Your task to perform on an android device: Play the last video I watched on Youtube Image 0: 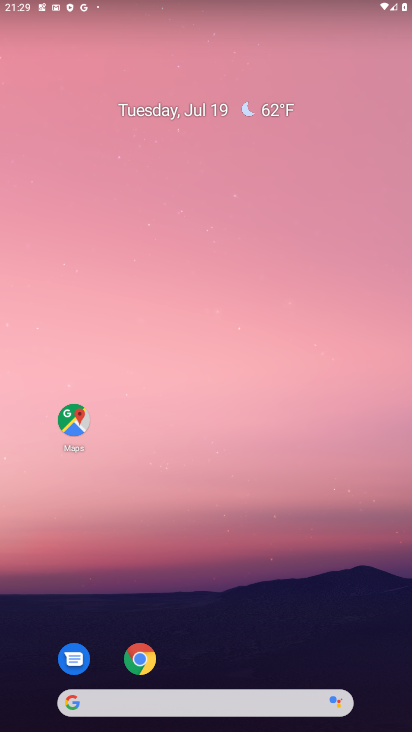
Step 0: press home button
Your task to perform on an android device: Play the last video I watched on Youtube Image 1: 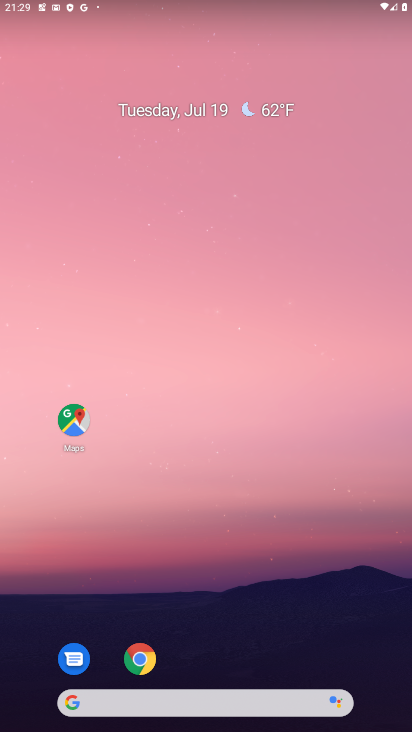
Step 1: drag from (179, 617) to (169, 158)
Your task to perform on an android device: Play the last video I watched on Youtube Image 2: 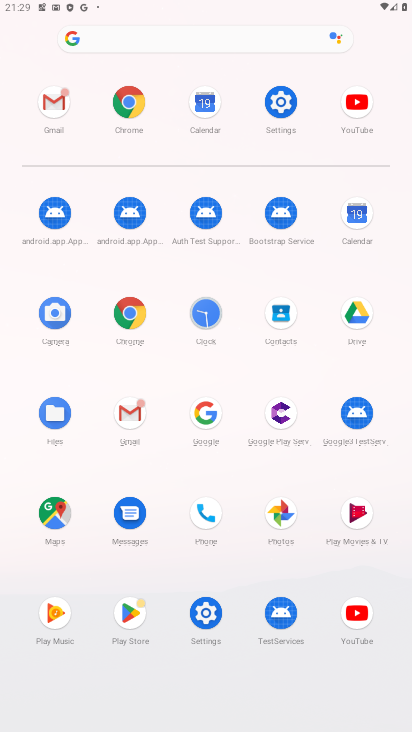
Step 2: click (368, 611)
Your task to perform on an android device: Play the last video I watched on Youtube Image 3: 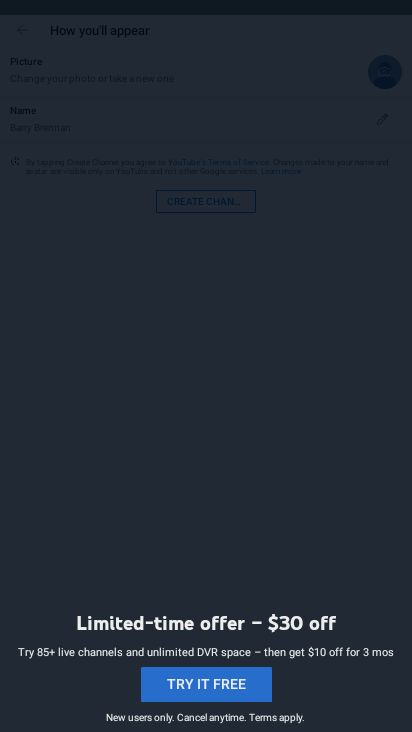
Step 3: click (12, 25)
Your task to perform on an android device: Play the last video I watched on Youtube Image 4: 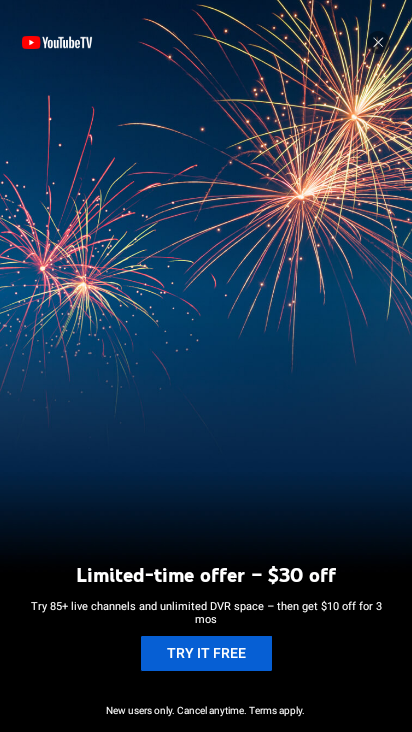
Step 4: click (384, 39)
Your task to perform on an android device: Play the last video I watched on Youtube Image 5: 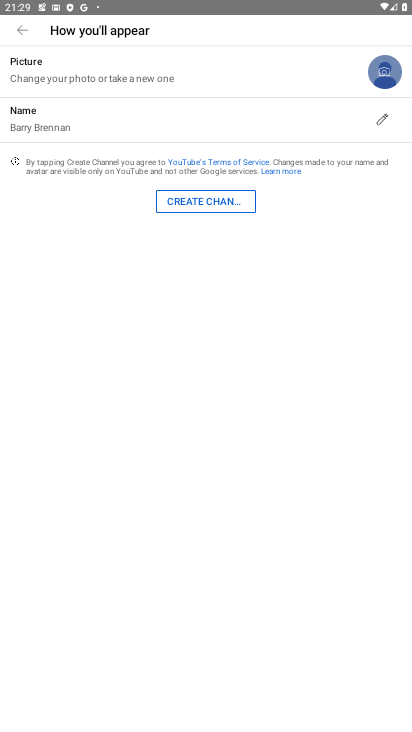
Step 5: click (26, 34)
Your task to perform on an android device: Play the last video I watched on Youtube Image 6: 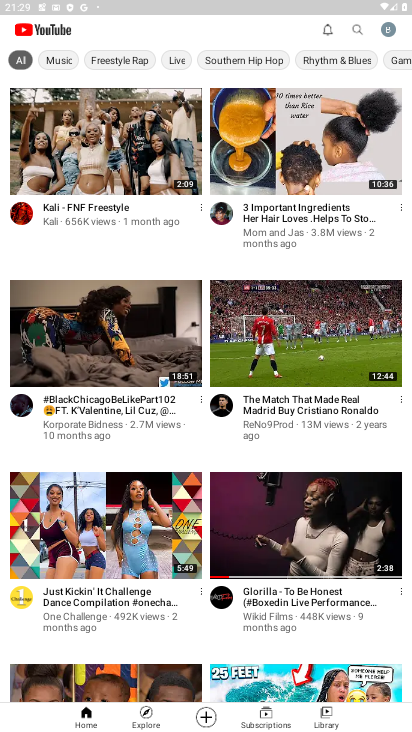
Step 6: click (335, 717)
Your task to perform on an android device: Play the last video I watched on Youtube Image 7: 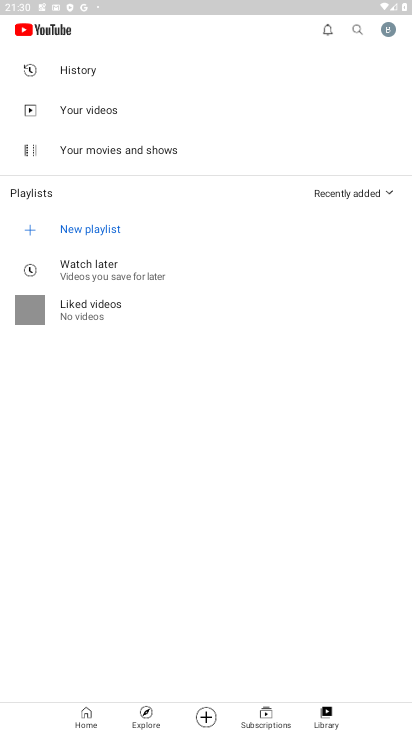
Step 7: task complete